Your task to perform on an android device: turn off location Image 0: 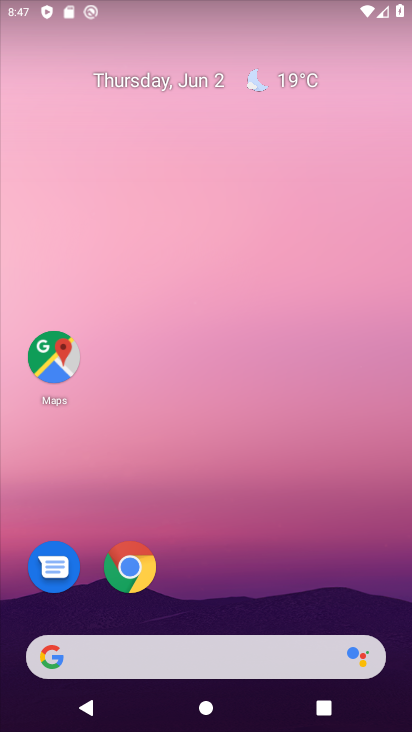
Step 0: press home button
Your task to perform on an android device: turn off location Image 1: 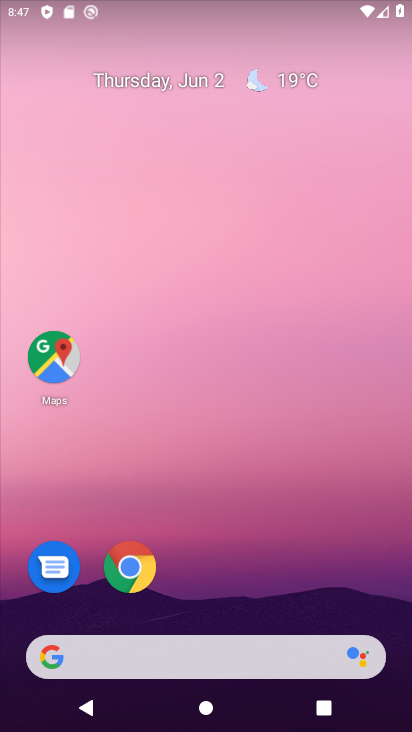
Step 1: drag from (226, 607) to (2, 465)
Your task to perform on an android device: turn off location Image 2: 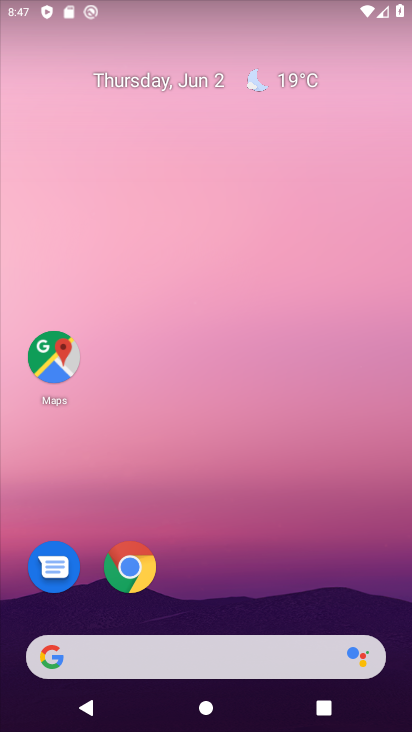
Step 2: click (289, 132)
Your task to perform on an android device: turn off location Image 3: 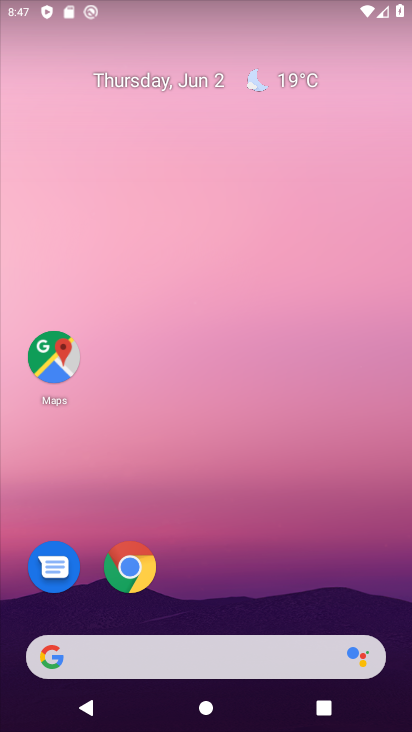
Step 3: drag from (219, 623) to (215, 0)
Your task to perform on an android device: turn off location Image 4: 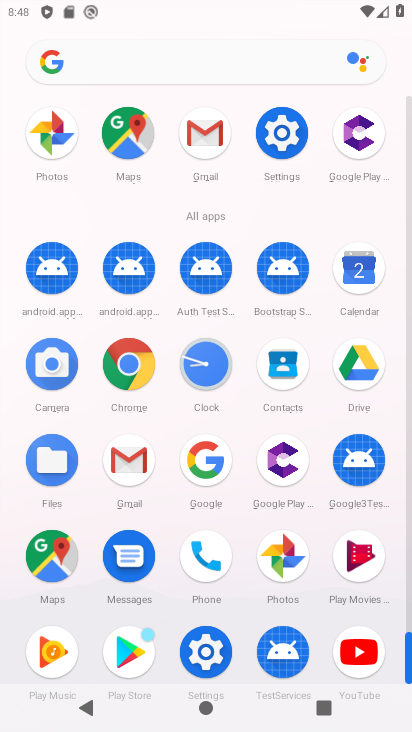
Step 4: click (282, 127)
Your task to perform on an android device: turn off location Image 5: 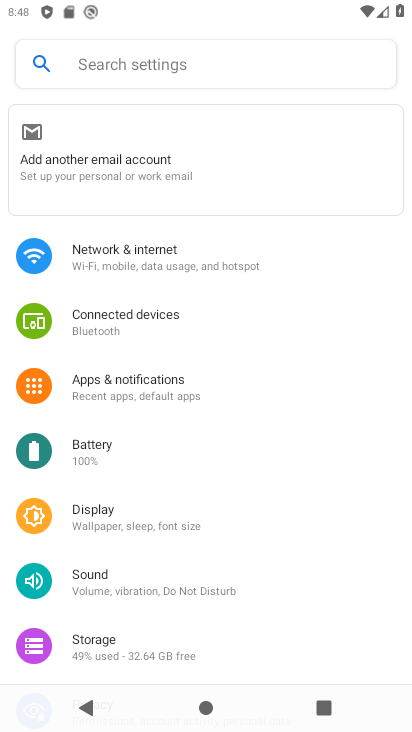
Step 5: drag from (149, 628) to (155, 142)
Your task to perform on an android device: turn off location Image 6: 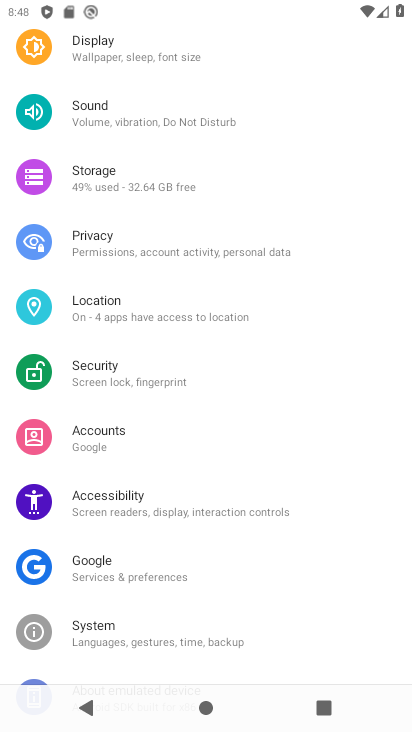
Step 6: click (138, 300)
Your task to perform on an android device: turn off location Image 7: 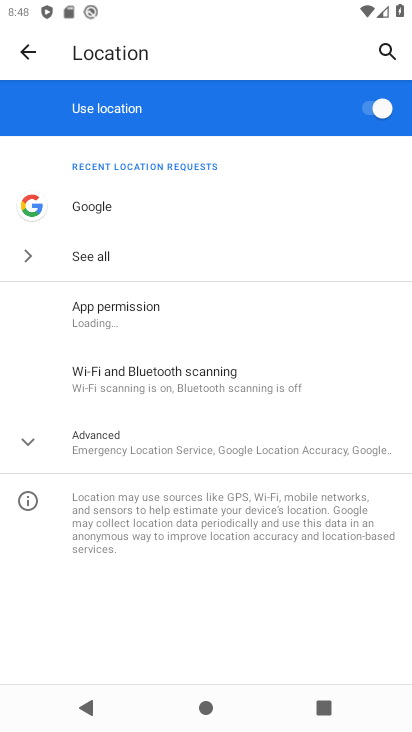
Step 7: click (369, 106)
Your task to perform on an android device: turn off location Image 8: 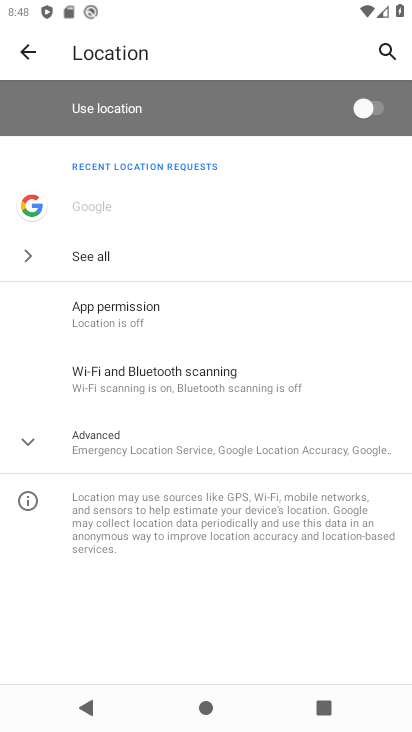
Step 8: task complete